Your task to perform on an android device: toggle wifi Image 0: 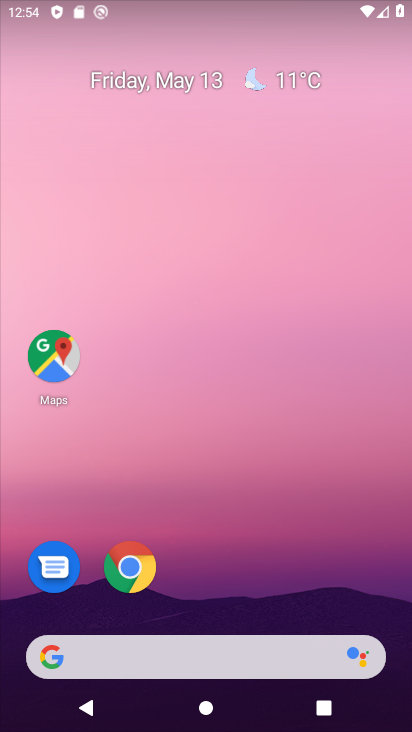
Step 0: drag from (245, 179) to (251, 81)
Your task to perform on an android device: toggle wifi Image 1: 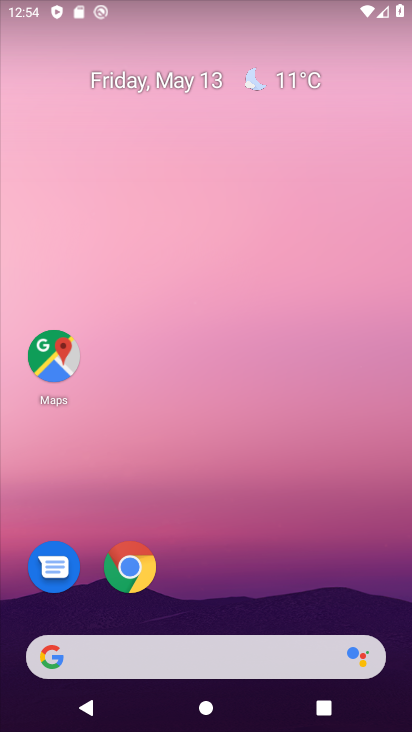
Step 1: drag from (197, 65) to (190, 501)
Your task to perform on an android device: toggle wifi Image 2: 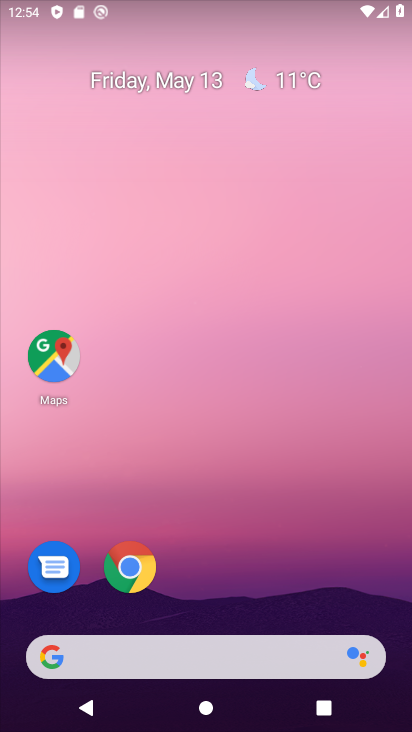
Step 2: click (162, 452)
Your task to perform on an android device: toggle wifi Image 3: 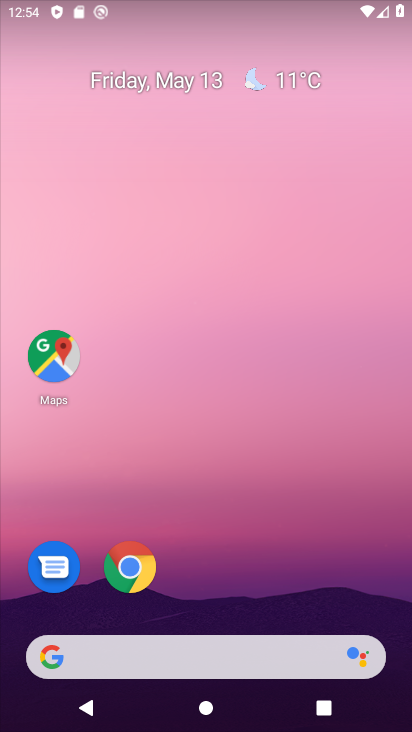
Step 3: drag from (178, 8) to (174, 486)
Your task to perform on an android device: toggle wifi Image 4: 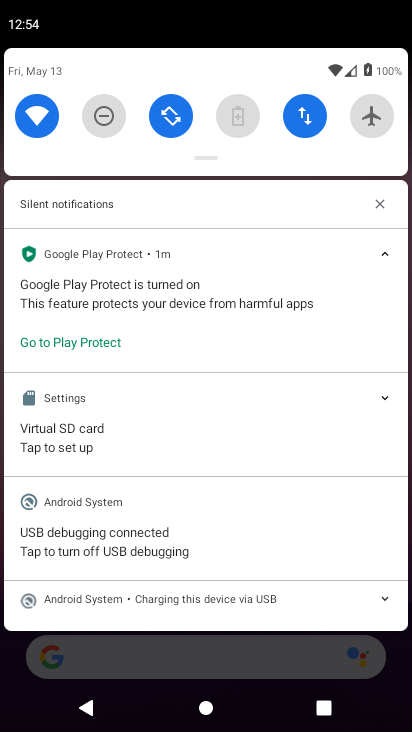
Step 4: click (40, 116)
Your task to perform on an android device: toggle wifi Image 5: 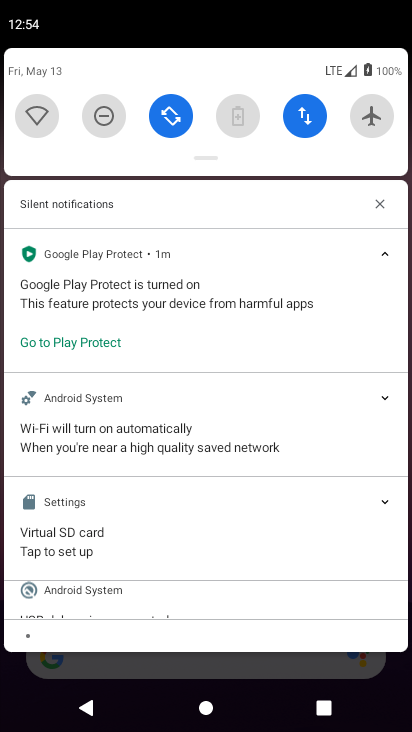
Step 5: task complete